Your task to perform on an android device: What's the latest video from GameSpot eSports? Image 0: 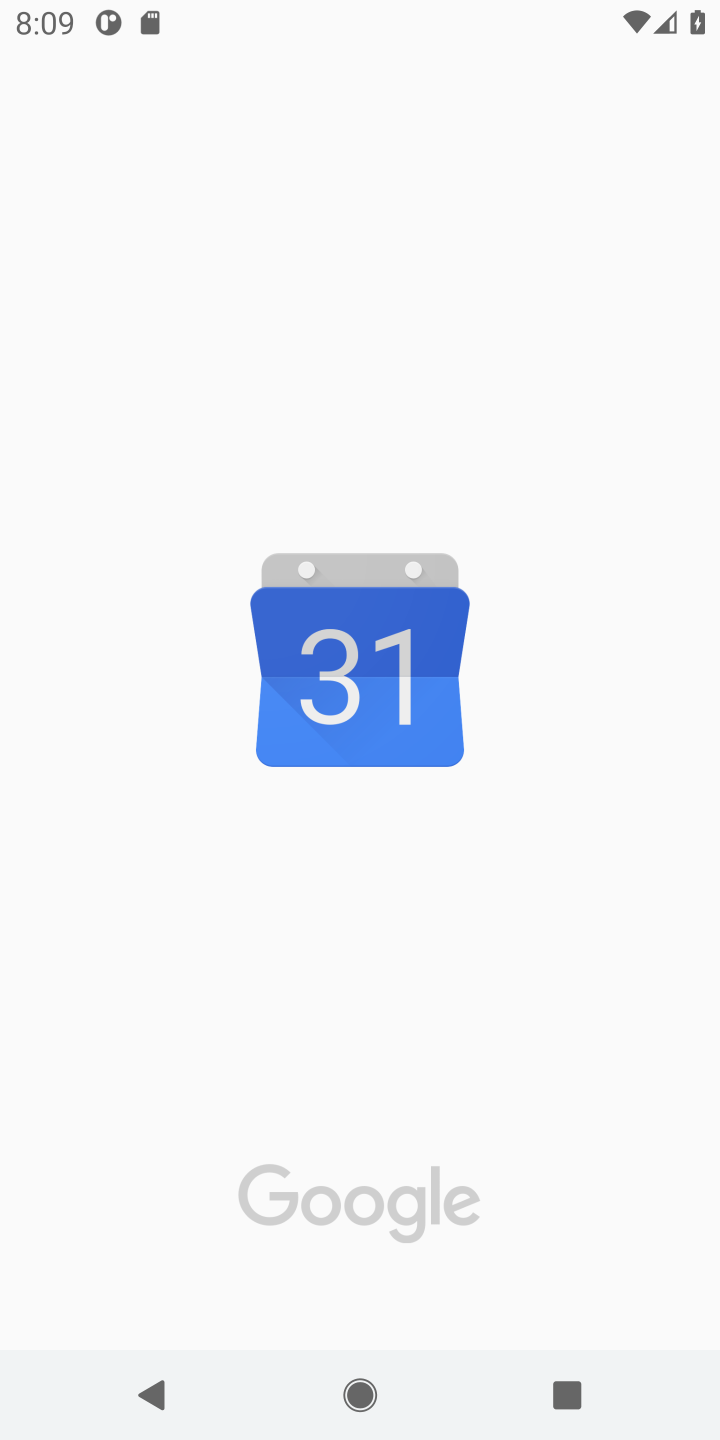
Step 0: press home button
Your task to perform on an android device: What's the latest video from GameSpot eSports? Image 1: 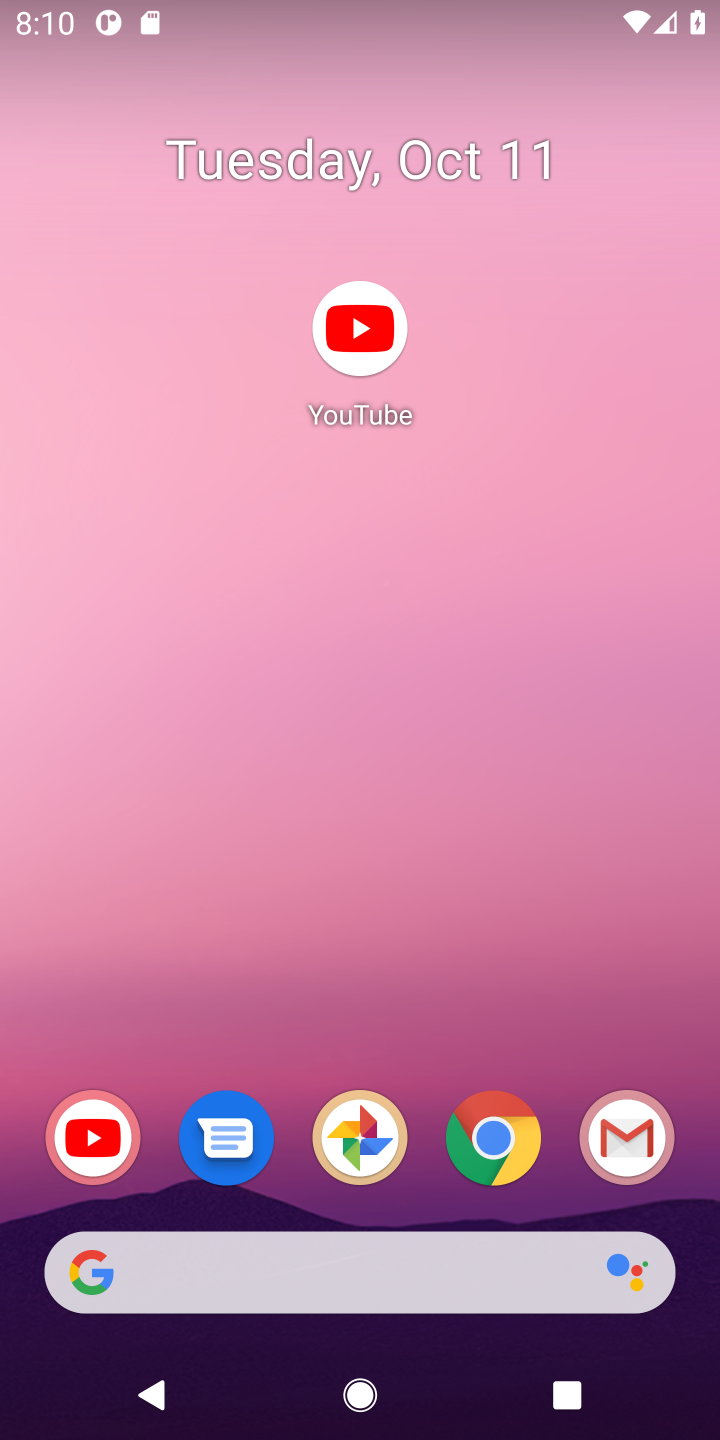
Step 1: drag from (374, 1145) to (342, 205)
Your task to perform on an android device: What's the latest video from GameSpot eSports? Image 2: 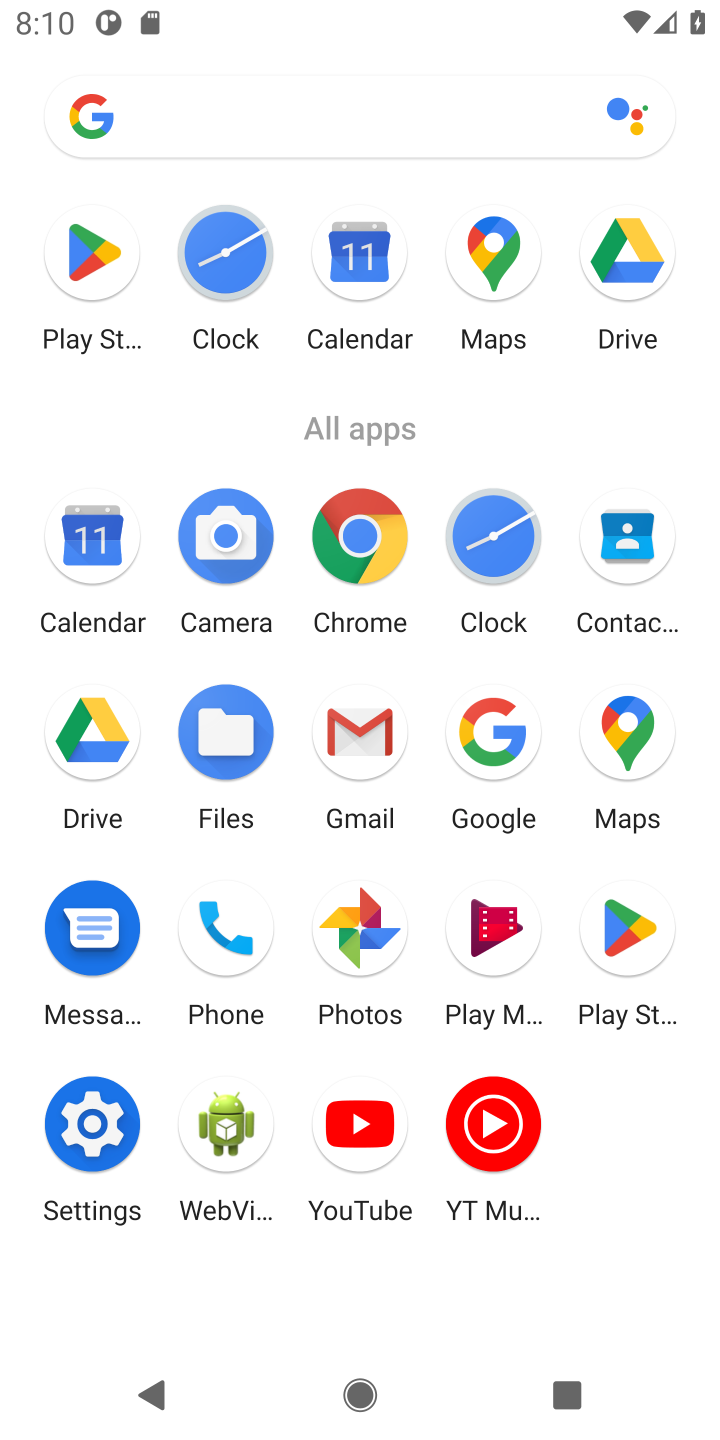
Step 2: click (368, 1190)
Your task to perform on an android device: What's the latest video from GameSpot eSports? Image 3: 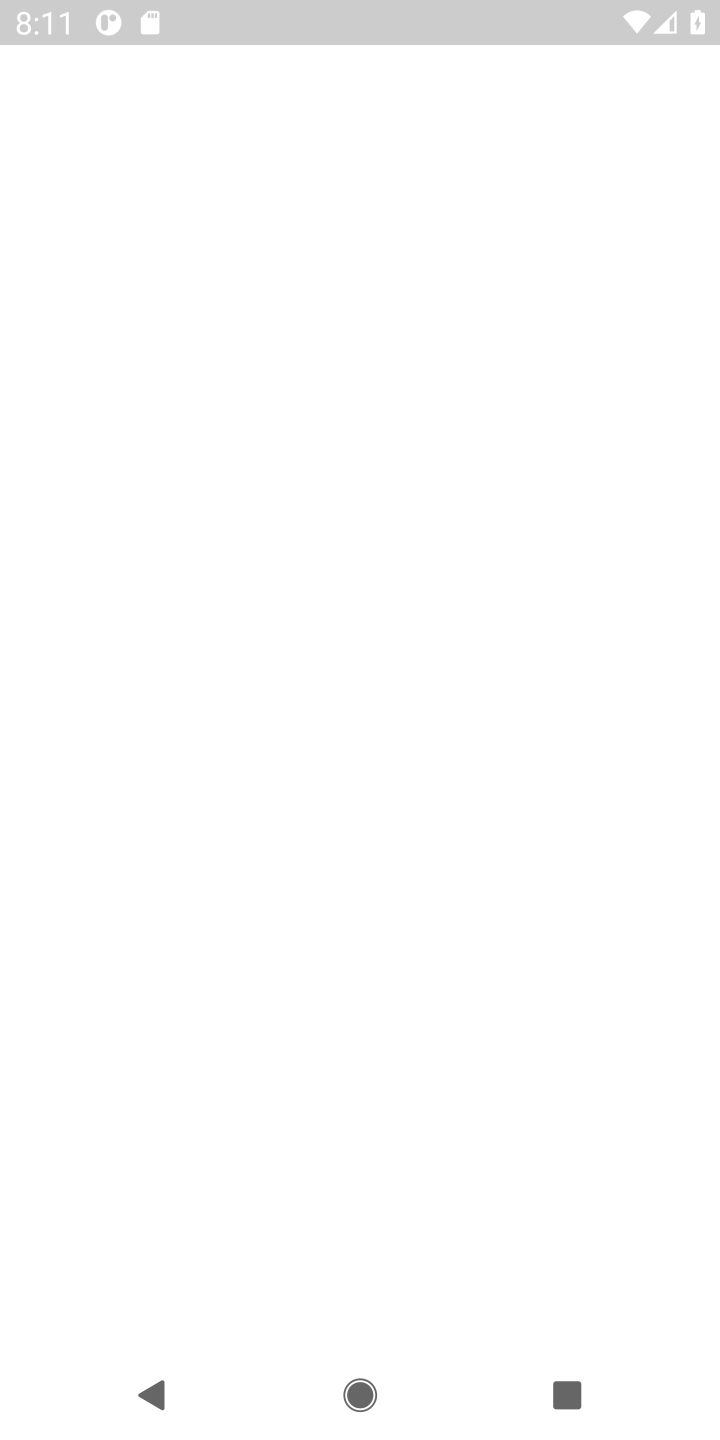
Step 3: task complete